Your task to perform on an android device: turn on wifi Image 0: 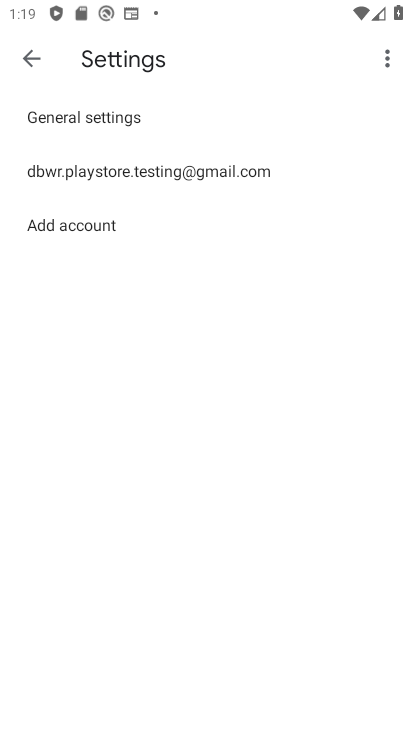
Step 0: press home button
Your task to perform on an android device: turn on wifi Image 1: 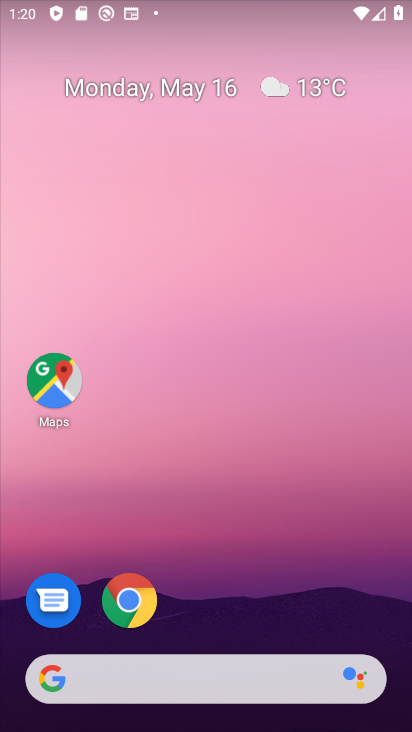
Step 1: drag from (225, 595) to (81, 74)
Your task to perform on an android device: turn on wifi Image 2: 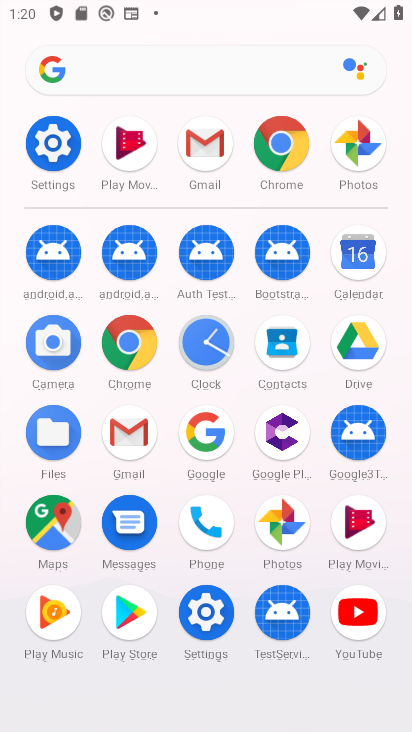
Step 2: click (212, 618)
Your task to perform on an android device: turn on wifi Image 3: 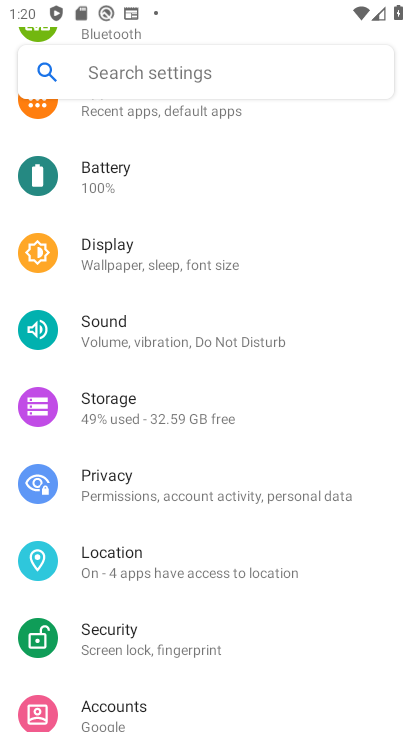
Step 3: drag from (147, 192) to (153, 621)
Your task to perform on an android device: turn on wifi Image 4: 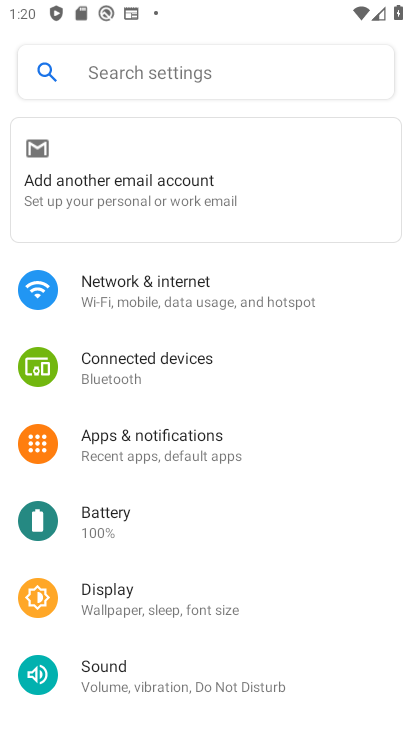
Step 4: click (127, 296)
Your task to perform on an android device: turn on wifi Image 5: 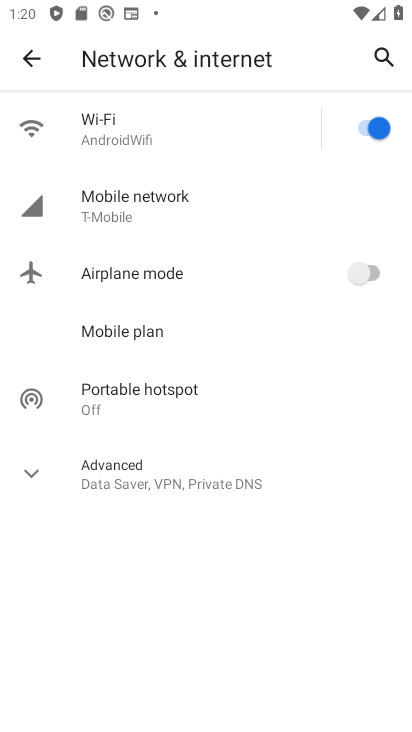
Step 5: task complete